Your task to perform on an android device: turn on wifi Image 0: 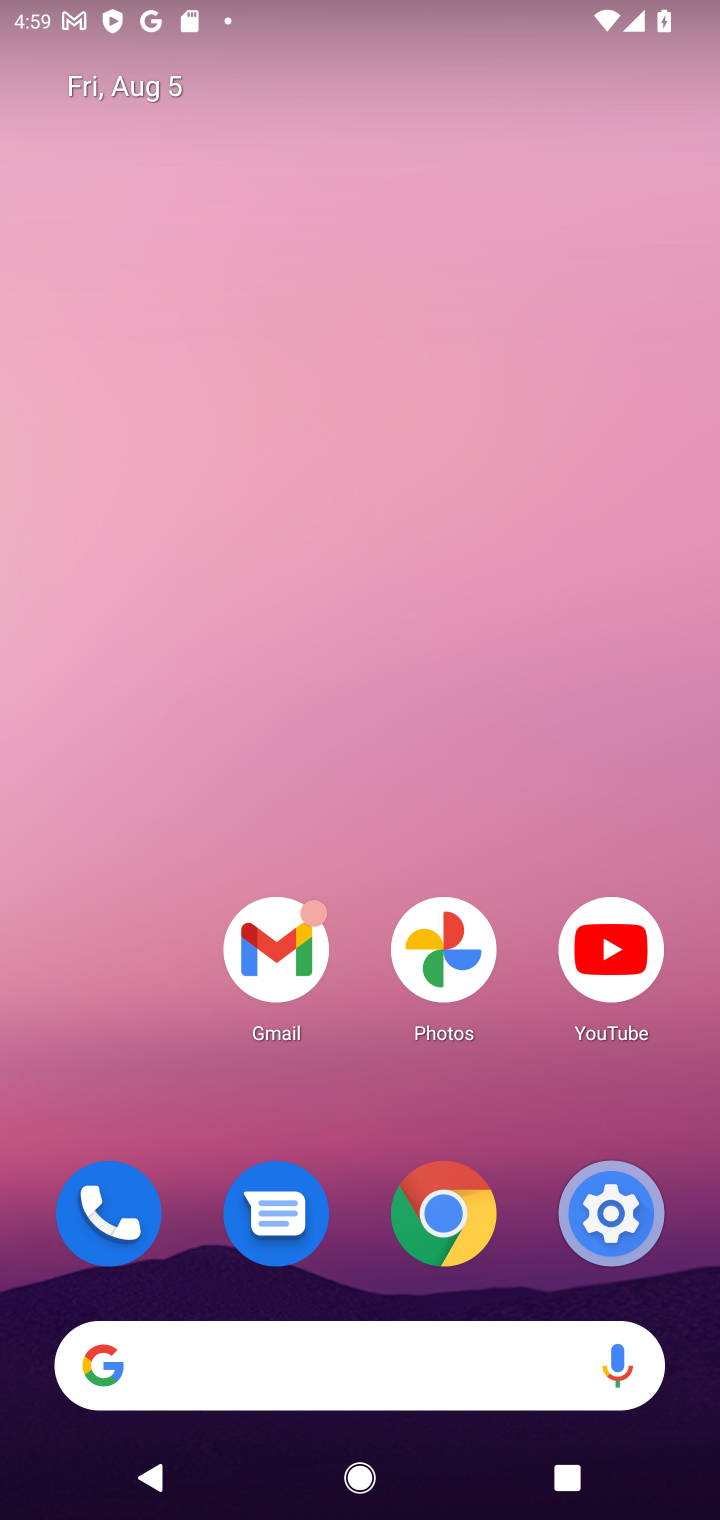
Step 0: click (593, 1236)
Your task to perform on an android device: turn on wifi Image 1: 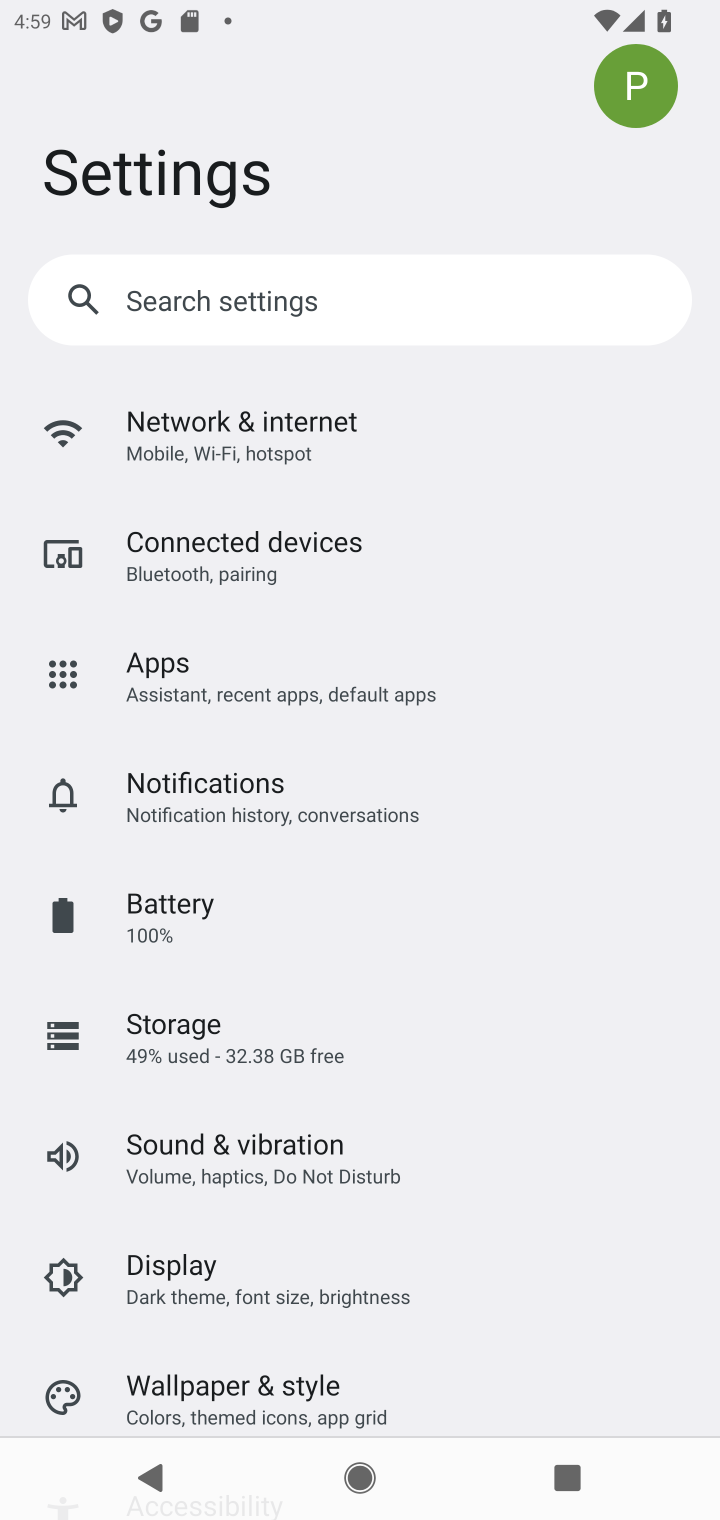
Step 1: click (241, 489)
Your task to perform on an android device: turn on wifi Image 2: 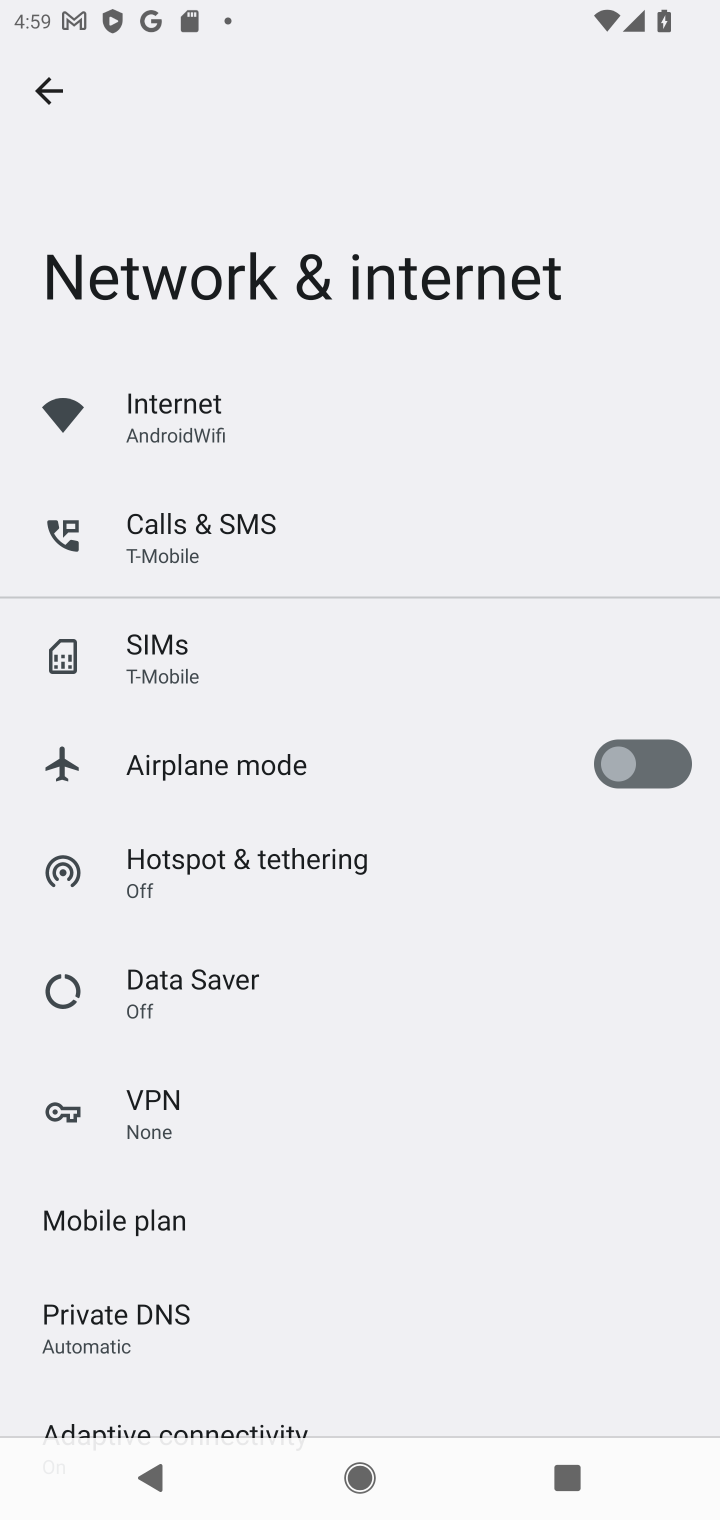
Step 2: task complete